Your task to perform on an android device: Search for "dell xps" on bestbuy, select the first entry, add it to the cart, then select checkout. Image 0: 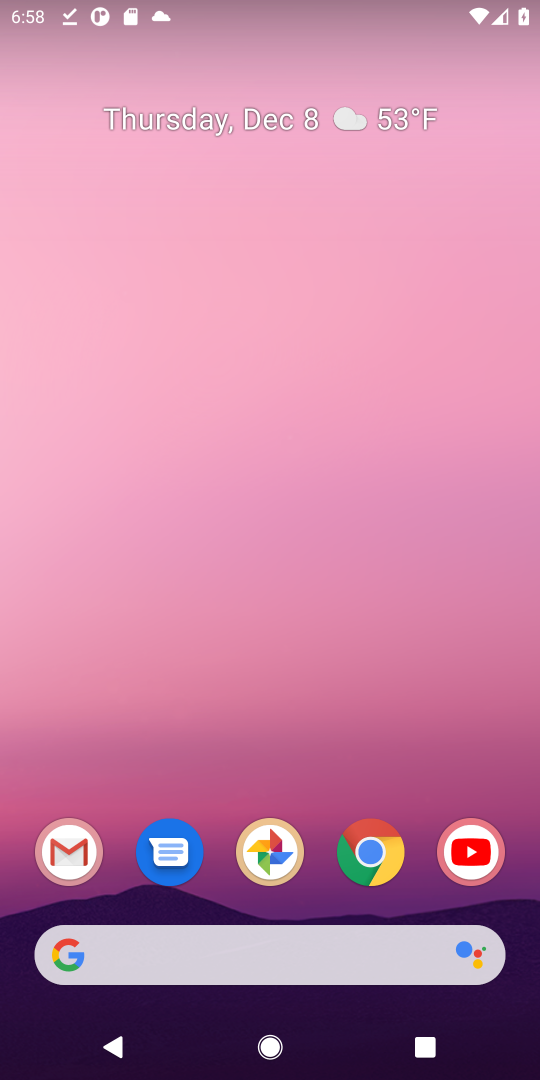
Step 0: click (297, 948)
Your task to perform on an android device: Search for "dell xps" on bestbuy, select the first entry, add it to the cart, then select checkout. Image 1: 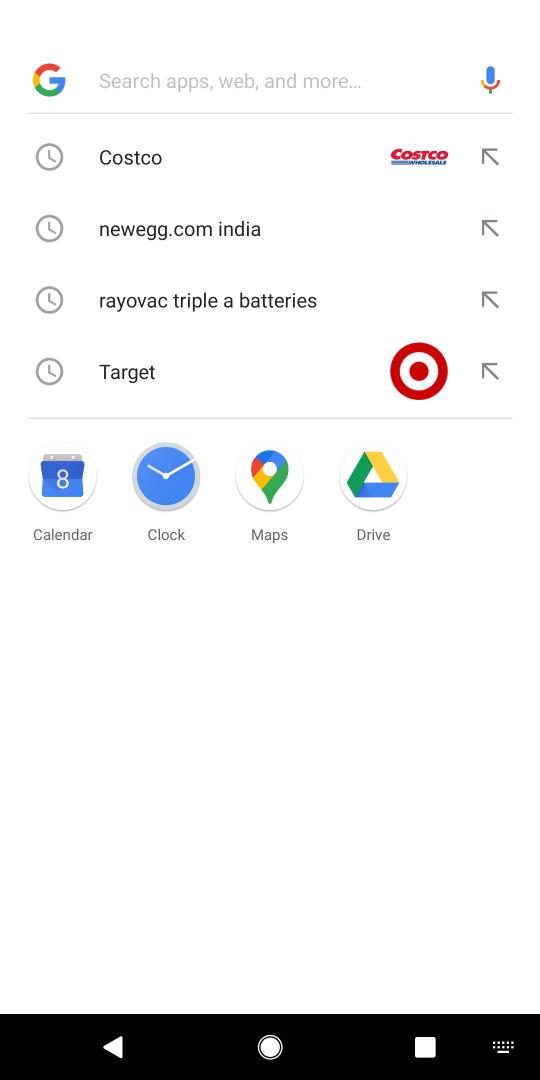
Step 1: type "bestbuy"
Your task to perform on an android device: Search for "dell xps" on bestbuy, select the first entry, add it to the cart, then select checkout. Image 2: 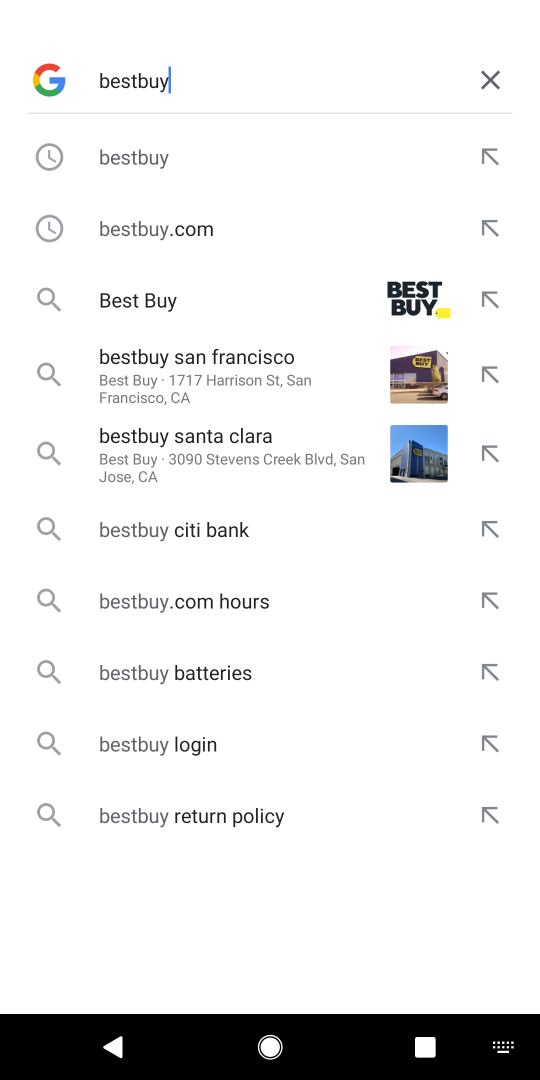
Step 2: click (302, 306)
Your task to perform on an android device: Search for "dell xps" on bestbuy, select the first entry, add it to the cart, then select checkout. Image 3: 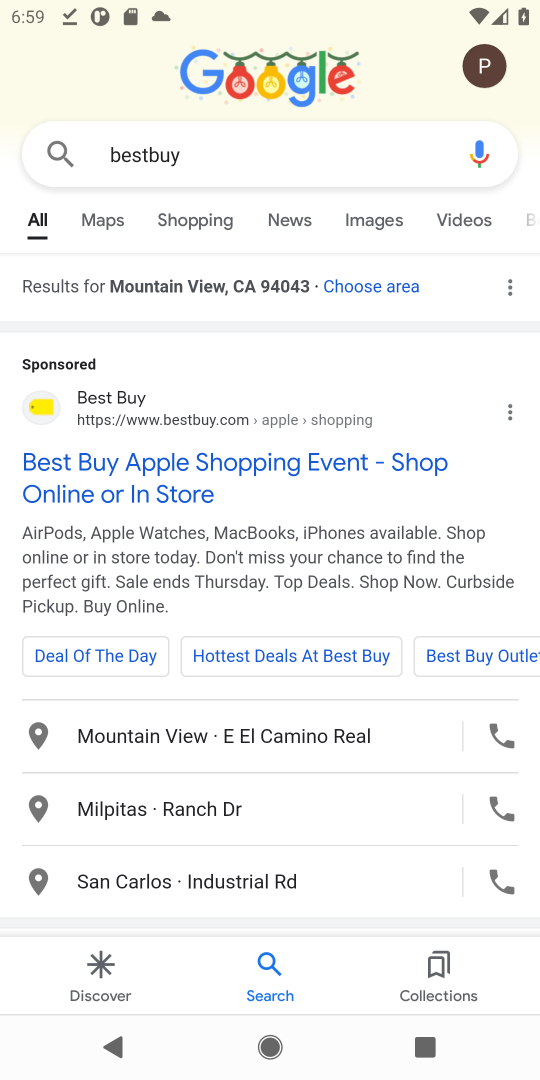
Step 3: click (120, 472)
Your task to perform on an android device: Search for "dell xps" on bestbuy, select the first entry, add it to the cart, then select checkout. Image 4: 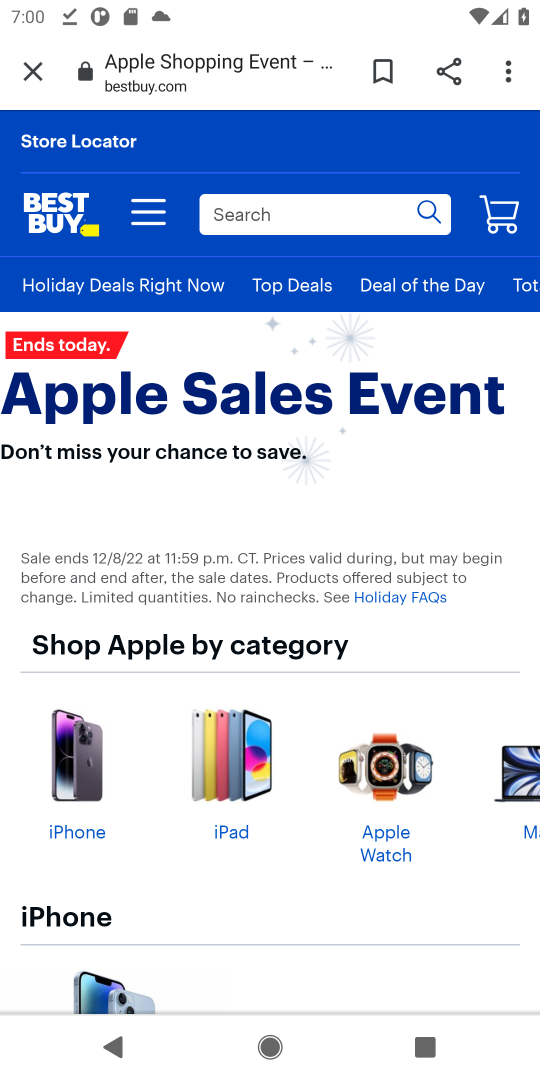
Step 4: click (245, 215)
Your task to perform on an android device: Search for "dell xps" on bestbuy, select the first entry, add it to the cart, then select checkout. Image 5: 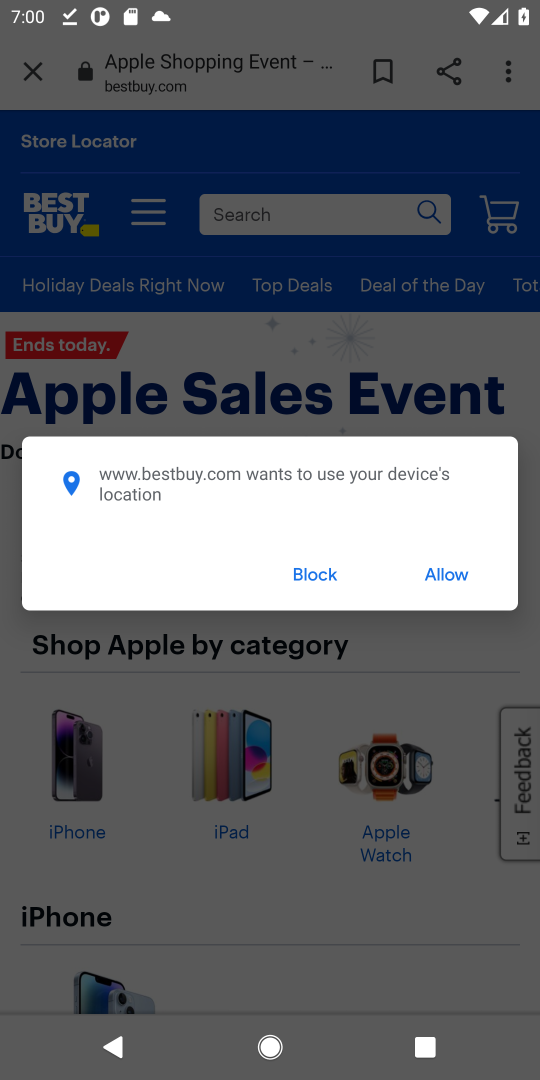
Step 5: click (309, 596)
Your task to perform on an android device: Search for "dell xps" on bestbuy, select the first entry, add it to the cart, then select checkout. Image 6: 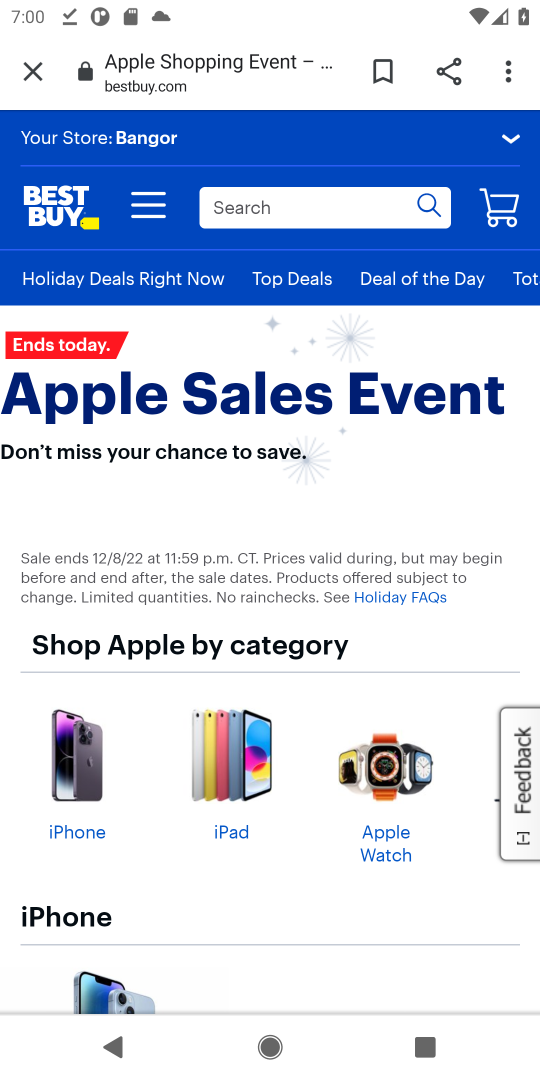
Step 6: click (343, 196)
Your task to perform on an android device: Search for "dell xps" on bestbuy, select the first entry, add it to the cart, then select checkout. Image 7: 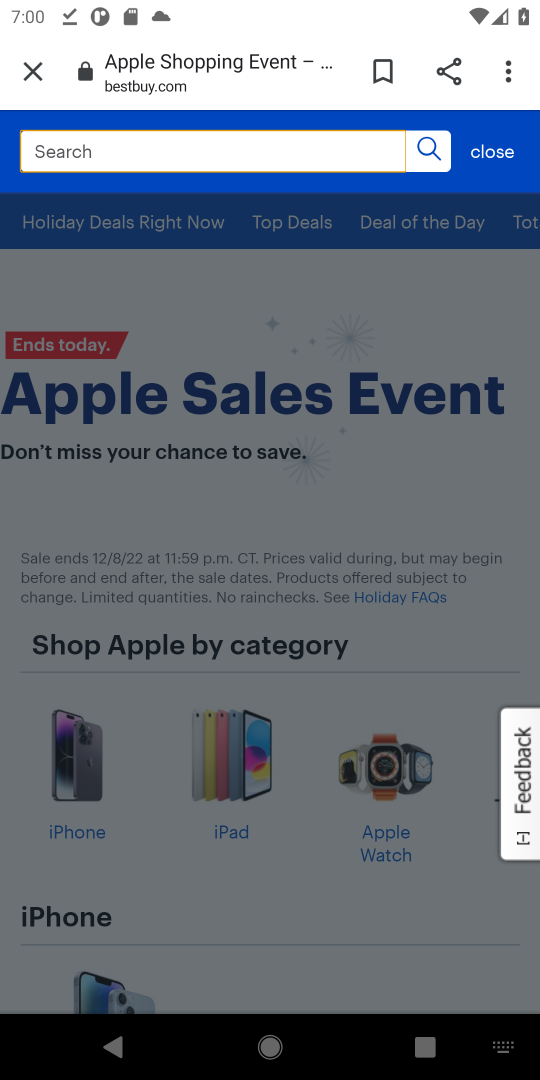
Step 7: click (252, 146)
Your task to perform on an android device: Search for "dell xps" on bestbuy, select the first entry, add it to the cart, then select checkout. Image 8: 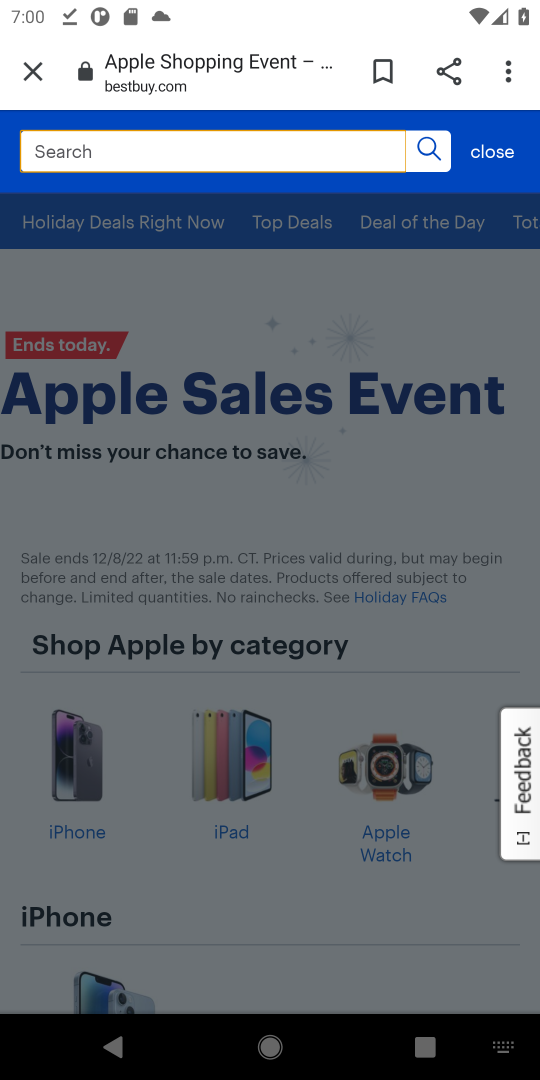
Step 8: type "psdell x"
Your task to perform on an android device: Search for "dell xps" on bestbuy, select the first entry, add it to the cart, then select checkout. Image 9: 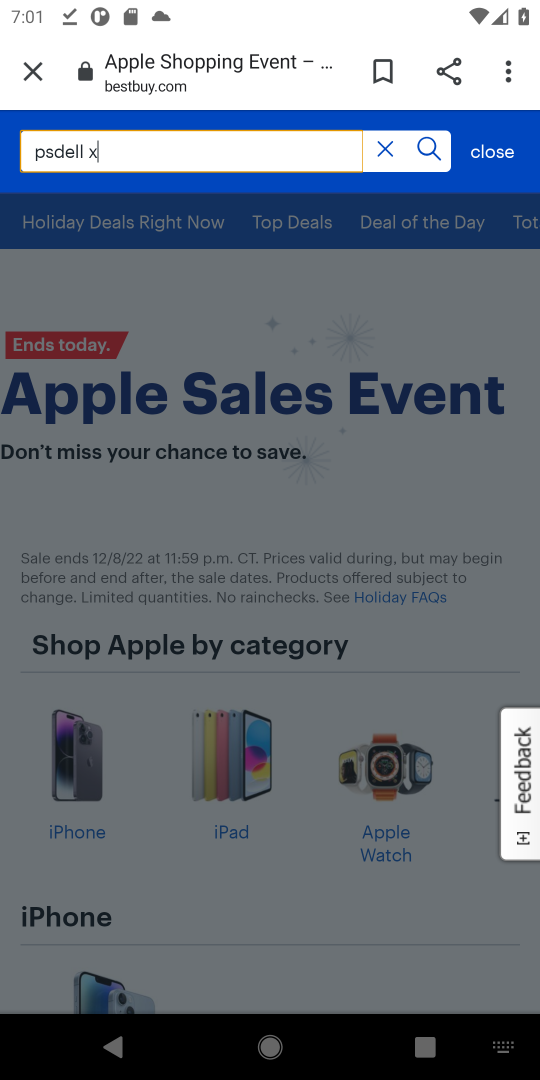
Step 9: click (410, 154)
Your task to perform on an android device: Search for "dell xps" on bestbuy, select the first entry, add it to the cart, then select checkout. Image 10: 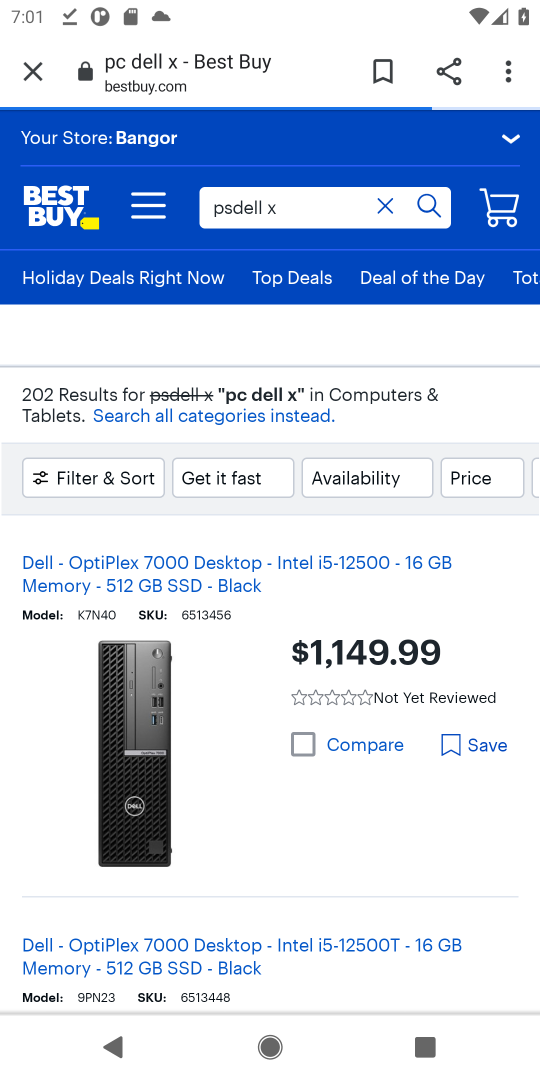
Step 10: click (298, 933)
Your task to perform on an android device: Search for "dell xps" on bestbuy, select the first entry, add it to the cart, then select checkout. Image 11: 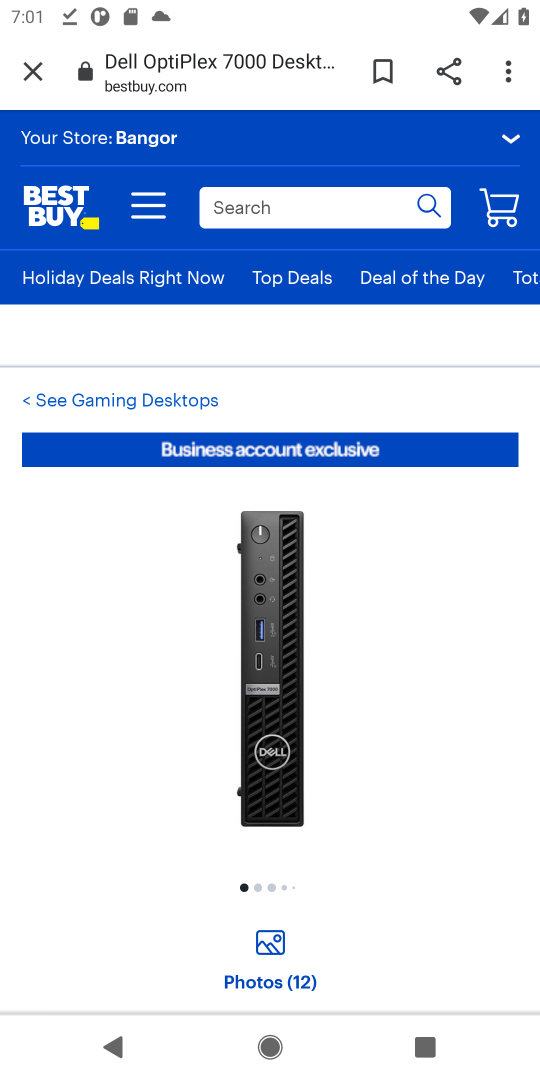
Step 11: task complete